Your task to perform on an android device: allow notifications from all sites in the chrome app Image 0: 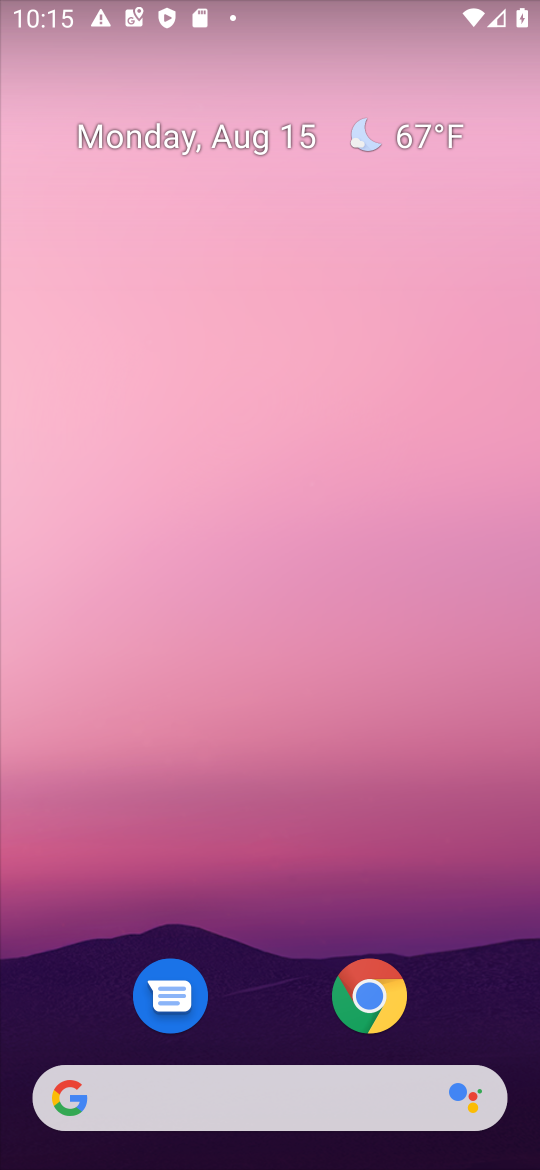
Step 0: click (372, 988)
Your task to perform on an android device: allow notifications from all sites in the chrome app Image 1: 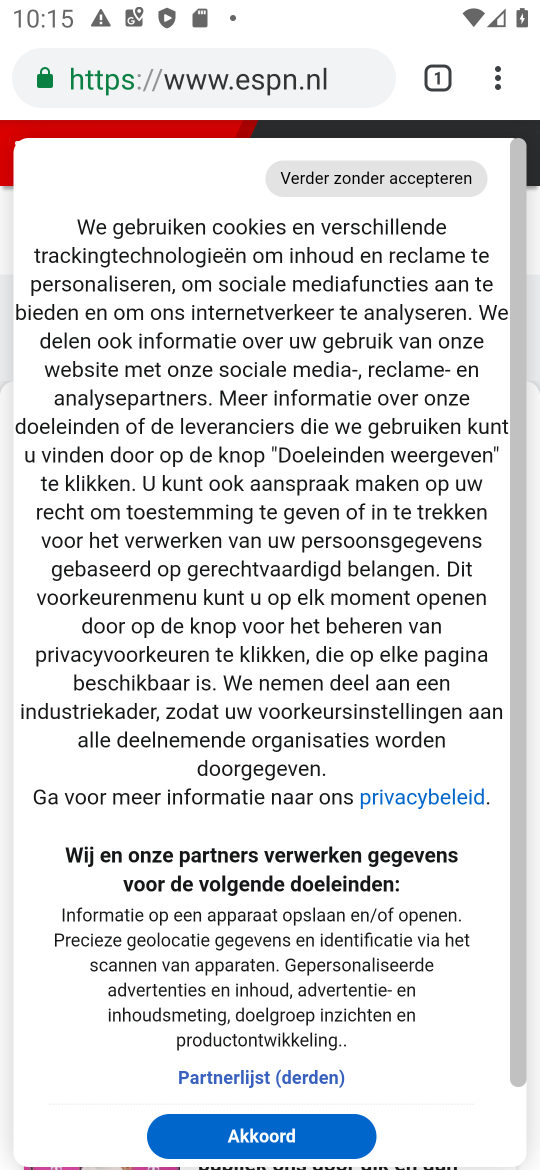
Step 1: click (500, 73)
Your task to perform on an android device: allow notifications from all sites in the chrome app Image 2: 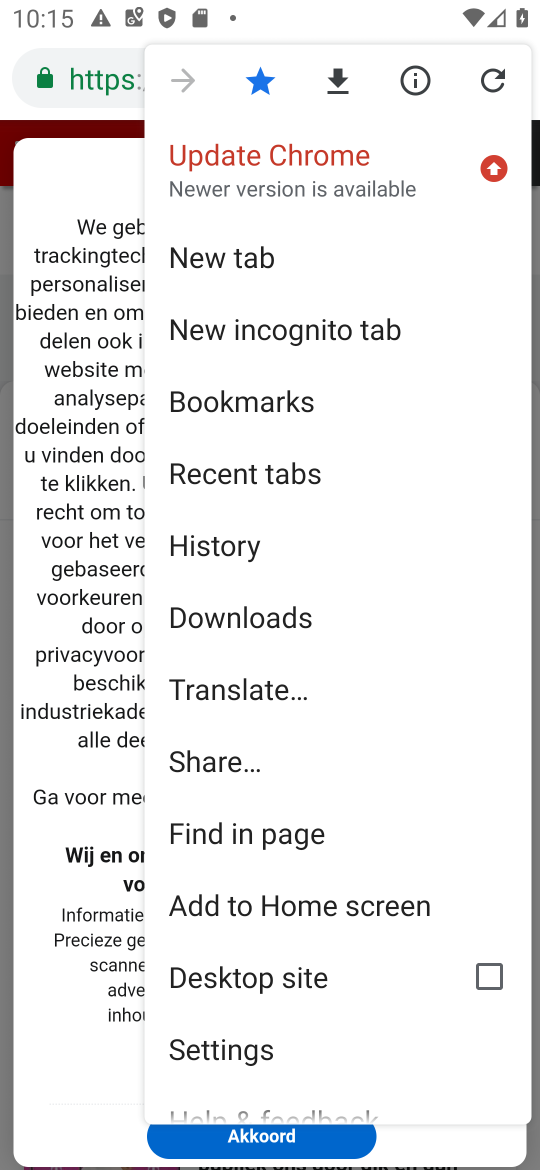
Step 2: click (222, 1047)
Your task to perform on an android device: allow notifications from all sites in the chrome app Image 3: 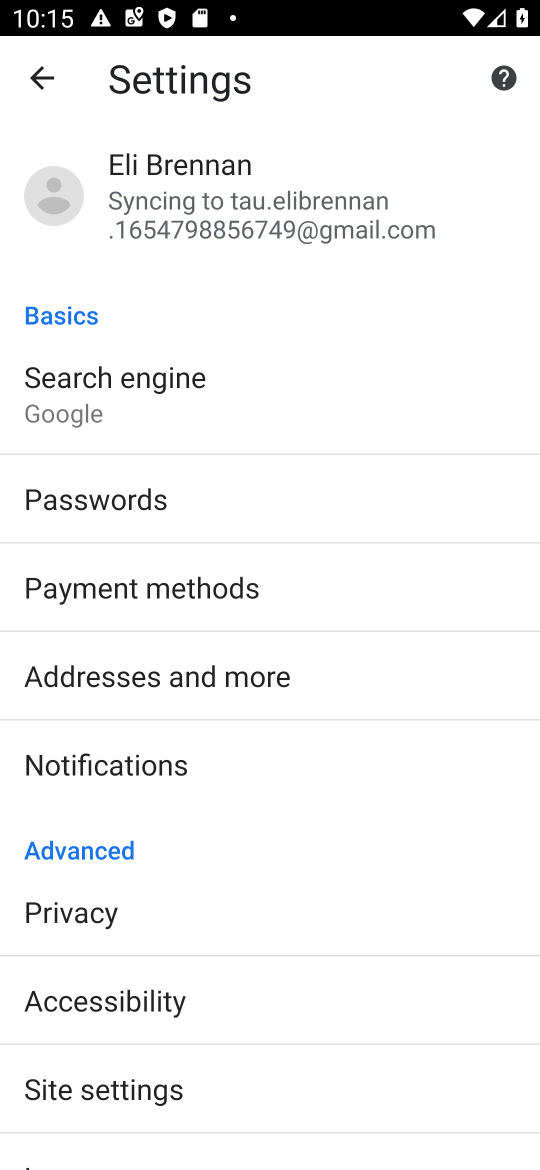
Step 3: click (122, 1088)
Your task to perform on an android device: allow notifications from all sites in the chrome app Image 4: 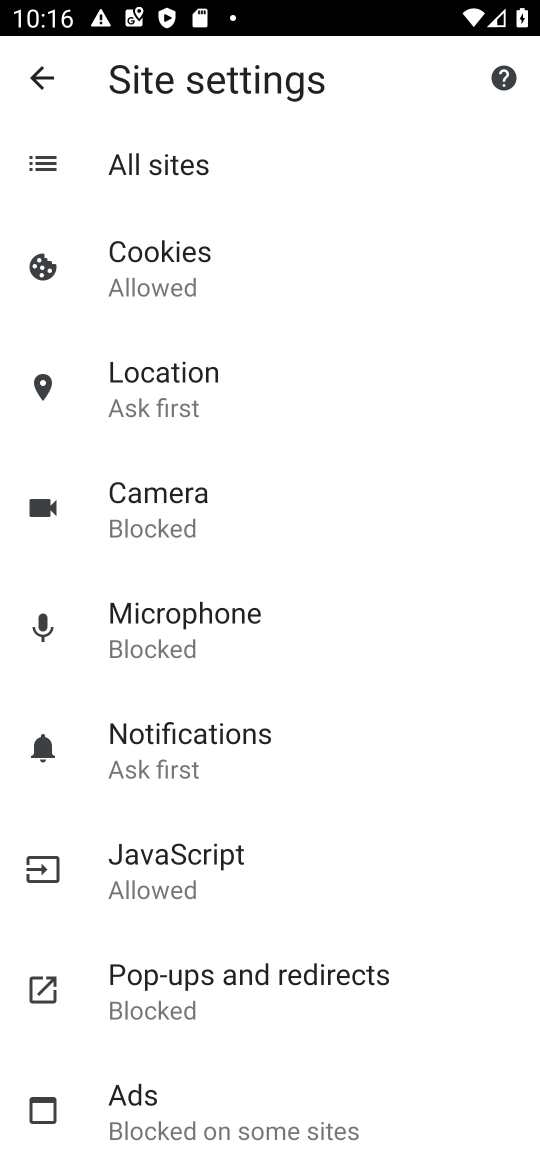
Step 4: click (204, 755)
Your task to perform on an android device: allow notifications from all sites in the chrome app Image 5: 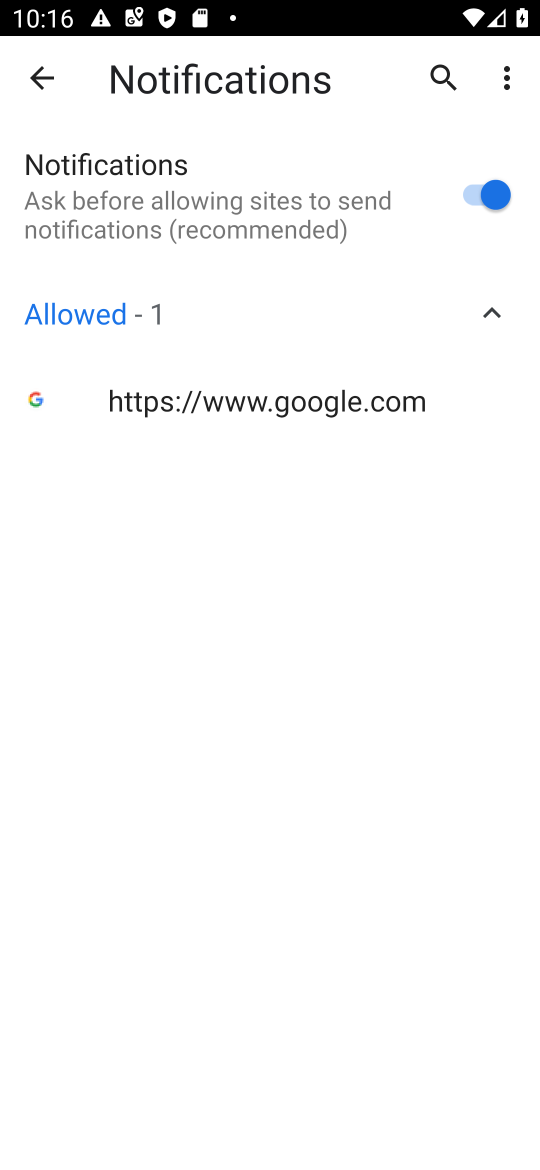
Step 5: task complete